Your task to perform on an android device: toggle airplane mode Image 0: 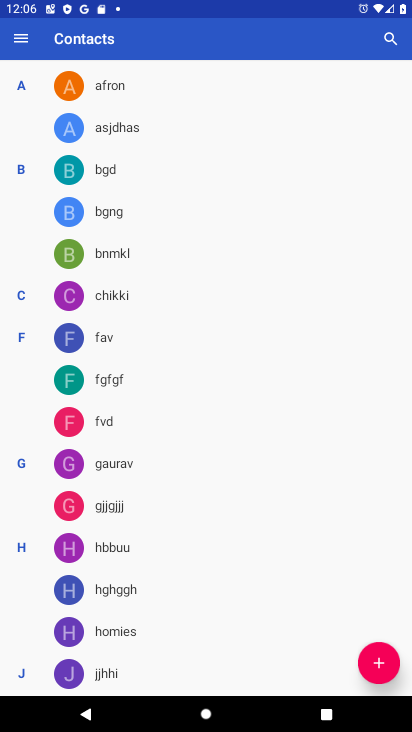
Step 0: press home button
Your task to perform on an android device: toggle airplane mode Image 1: 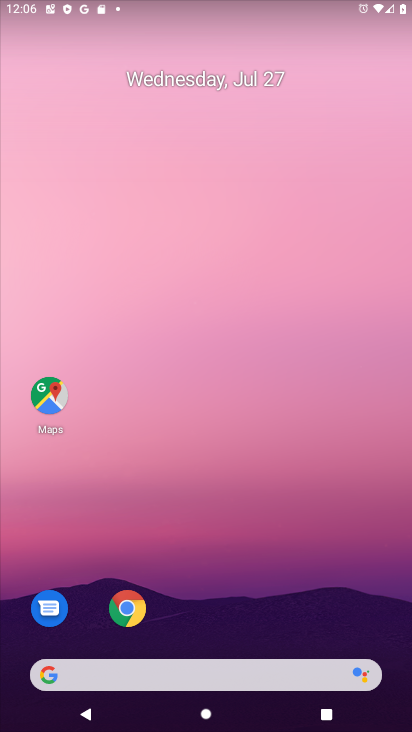
Step 1: drag from (170, 670) to (225, 143)
Your task to perform on an android device: toggle airplane mode Image 2: 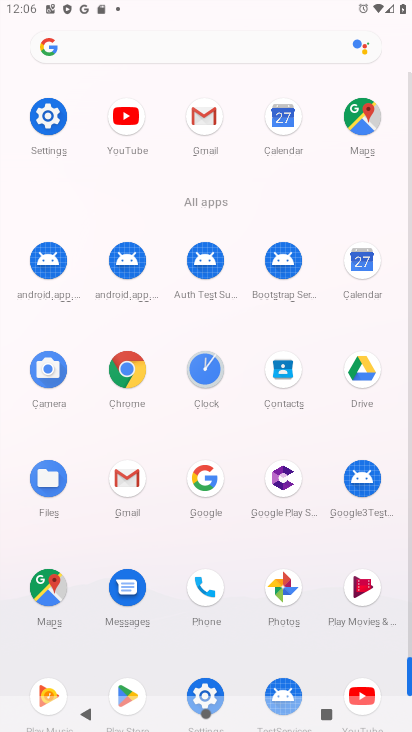
Step 2: click (44, 113)
Your task to perform on an android device: toggle airplane mode Image 3: 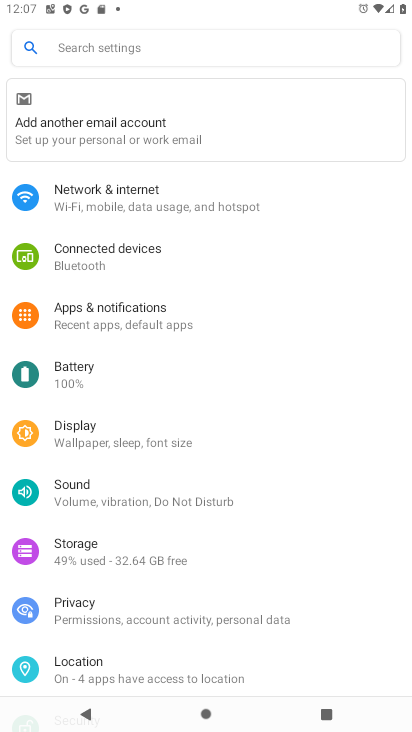
Step 3: click (116, 204)
Your task to perform on an android device: toggle airplane mode Image 4: 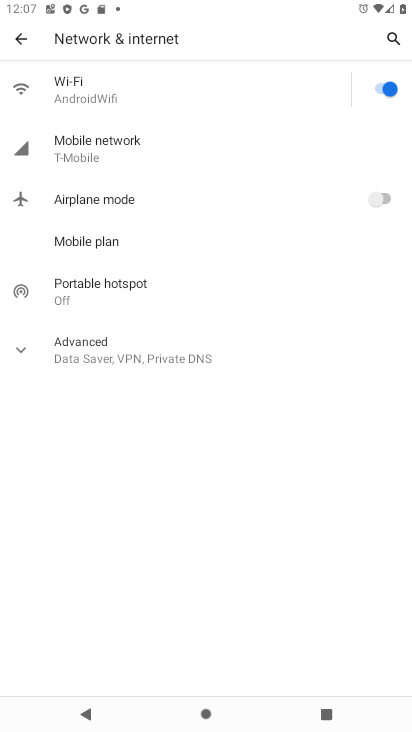
Step 4: click (375, 200)
Your task to perform on an android device: toggle airplane mode Image 5: 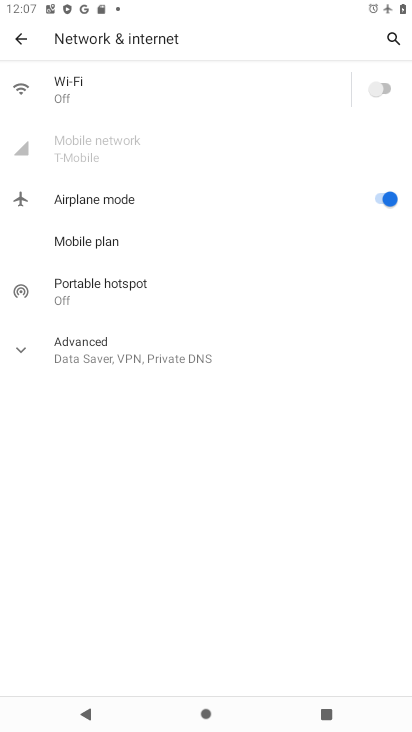
Step 5: task complete